Your task to perform on an android device: open chrome and create a bookmark for the current page Image 0: 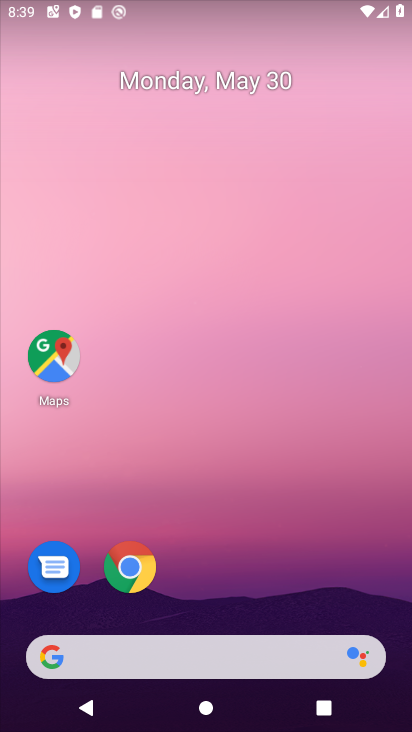
Step 0: click (132, 571)
Your task to perform on an android device: open chrome and create a bookmark for the current page Image 1: 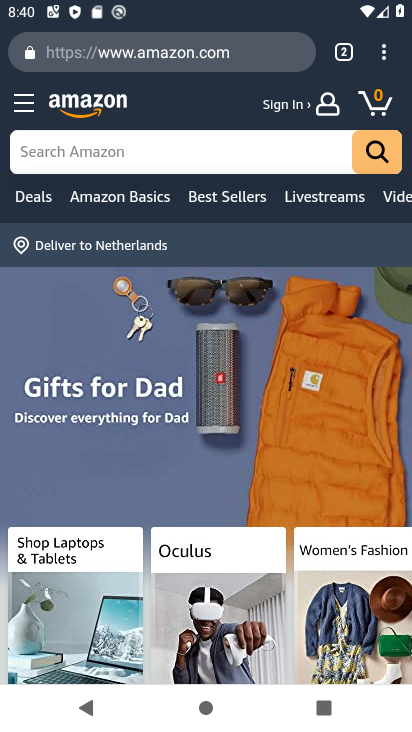
Step 1: click (393, 51)
Your task to perform on an android device: open chrome and create a bookmark for the current page Image 2: 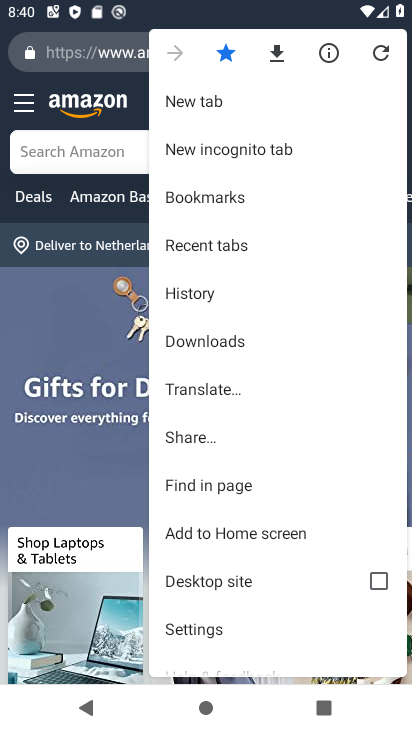
Step 2: task complete